Your task to perform on an android device: open a bookmark in the chrome app Image 0: 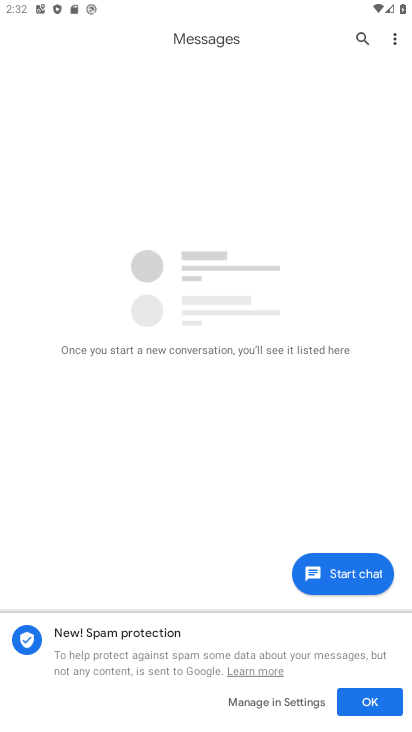
Step 0: press home button
Your task to perform on an android device: open a bookmark in the chrome app Image 1: 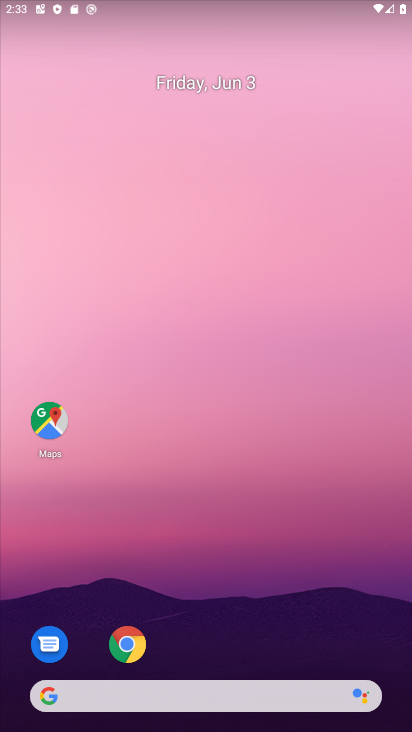
Step 1: click (126, 639)
Your task to perform on an android device: open a bookmark in the chrome app Image 2: 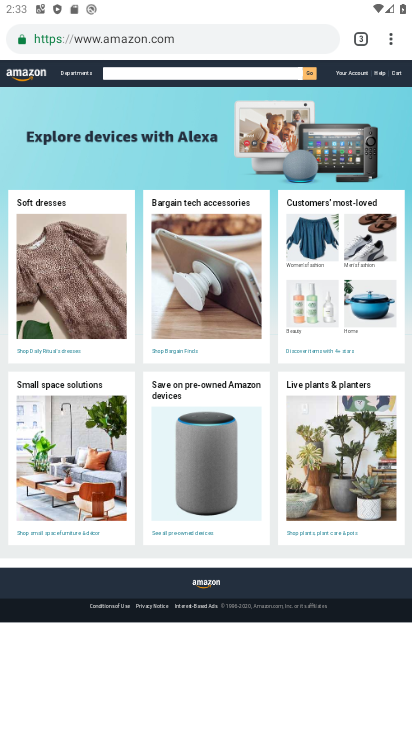
Step 2: click (392, 43)
Your task to perform on an android device: open a bookmark in the chrome app Image 3: 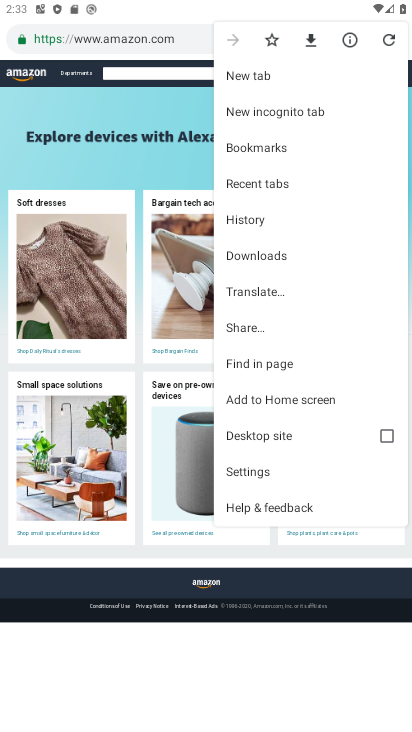
Step 3: click (295, 155)
Your task to perform on an android device: open a bookmark in the chrome app Image 4: 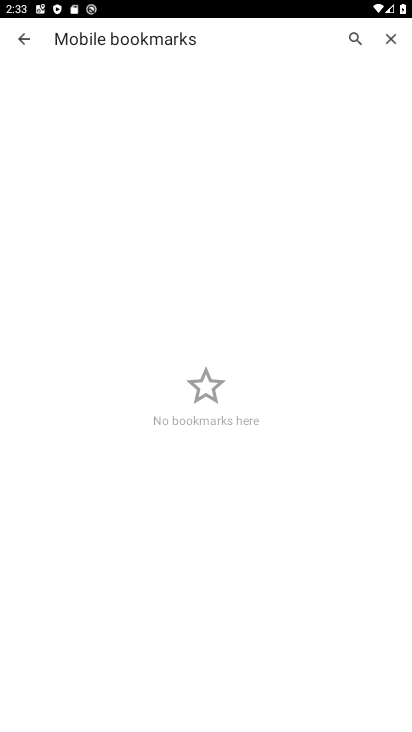
Step 4: task complete